Your task to perform on an android device: Open accessibility settings Image 0: 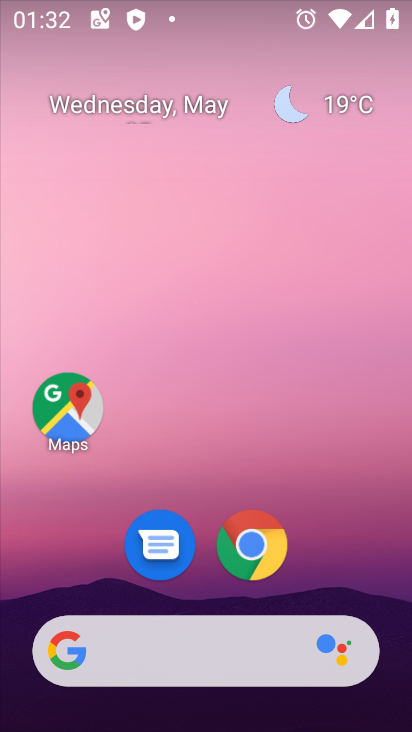
Step 0: drag from (317, 524) to (370, 138)
Your task to perform on an android device: Open accessibility settings Image 1: 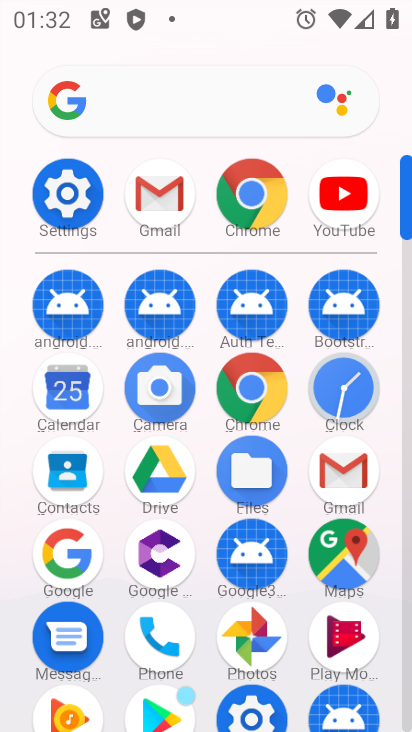
Step 1: click (72, 179)
Your task to perform on an android device: Open accessibility settings Image 2: 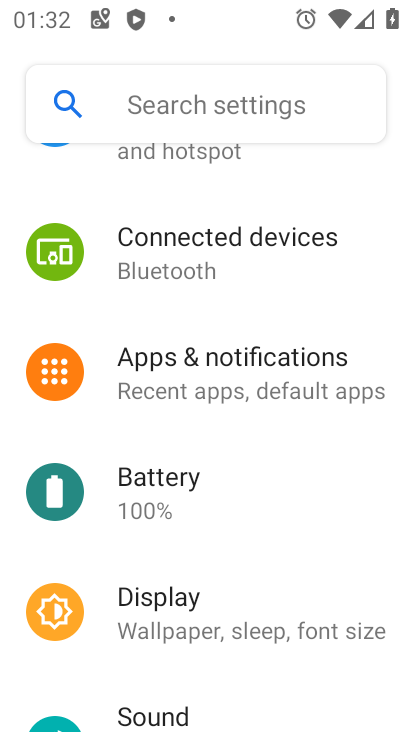
Step 2: drag from (233, 564) to (374, 103)
Your task to perform on an android device: Open accessibility settings Image 3: 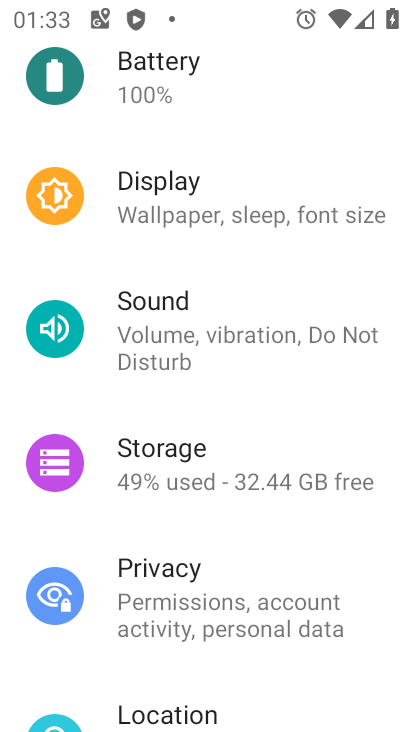
Step 3: drag from (184, 575) to (259, 27)
Your task to perform on an android device: Open accessibility settings Image 4: 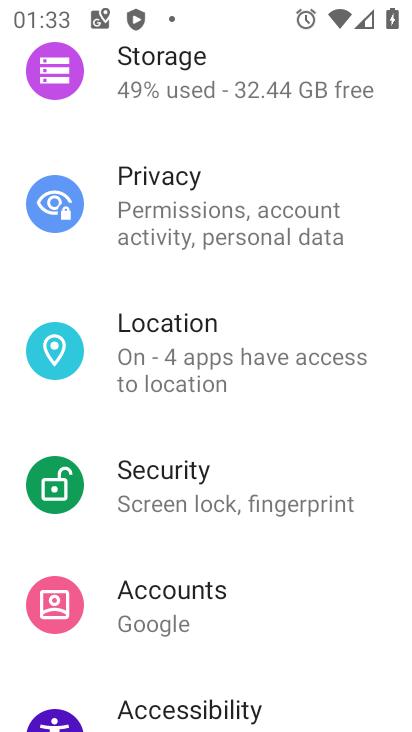
Step 4: drag from (202, 570) to (297, 217)
Your task to perform on an android device: Open accessibility settings Image 5: 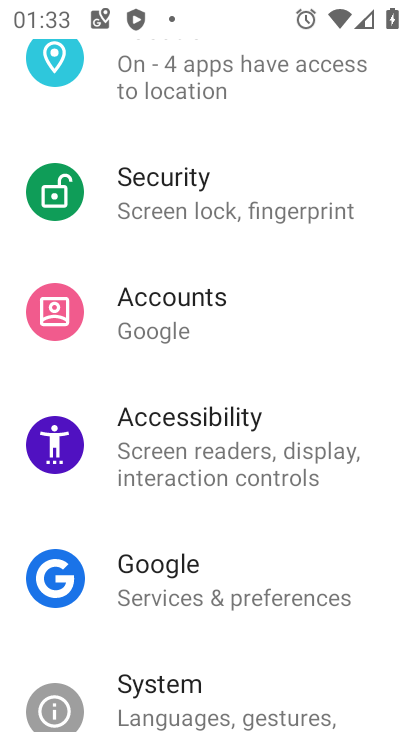
Step 5: click (183, 455)
Your task to perform on an android device: Open accessibility settings Image 6: 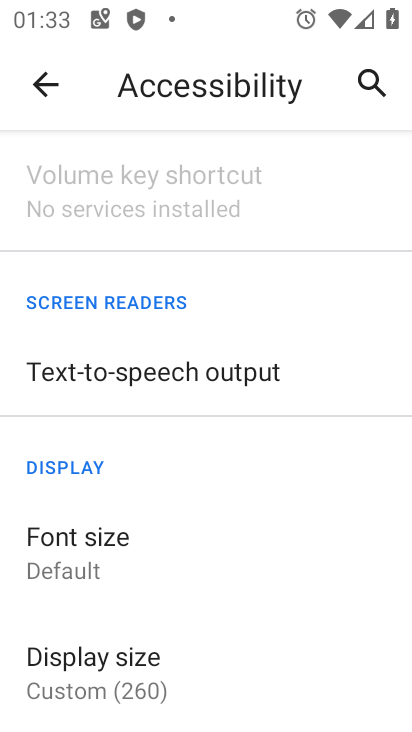
Step 6: task complete